Your task to perform on an android device: see creations saved in the google photos Image 0: 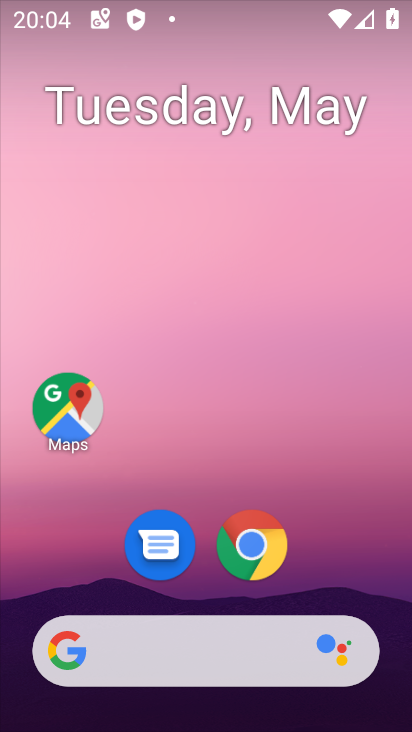
Step 0: drag from (356, 592) to (356, 101)
Your task to perform on an android device: see creations saved in the google photos Image 1: 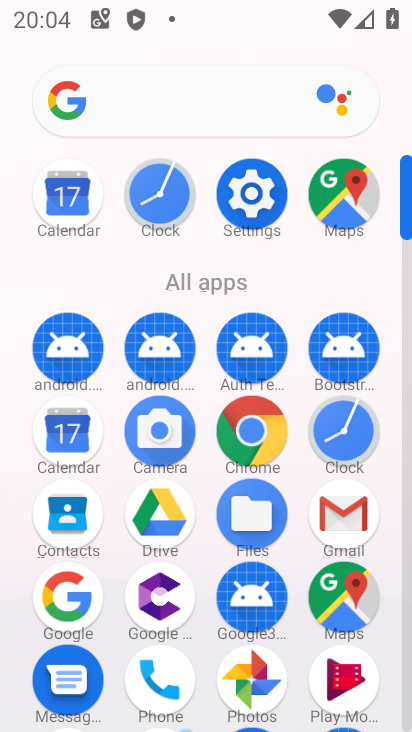
Step 1: click (238, 663)
Your task to perform on an android device: see creations saved in the google photos Image 2: 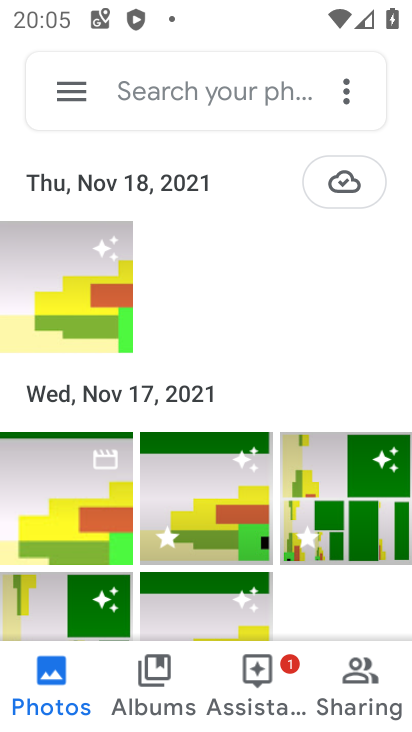
Step 2: click (150, 96)
Your task to perform on an android device: see creations saved in the google photos Image 3: 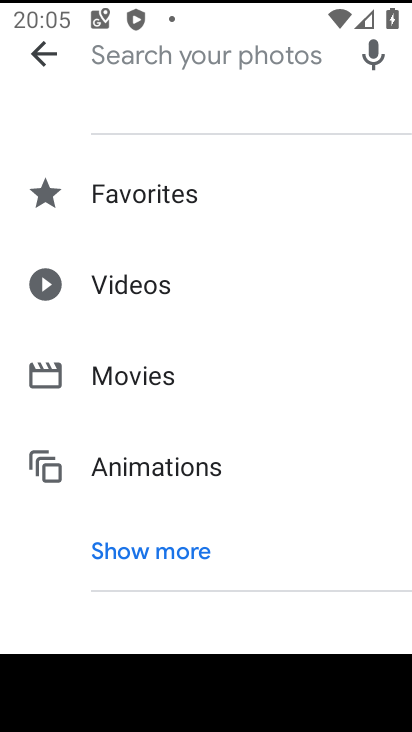
Step 3: click (148, 559)
Your task to perform on an android device: see creations saved in the google photos Image 4: 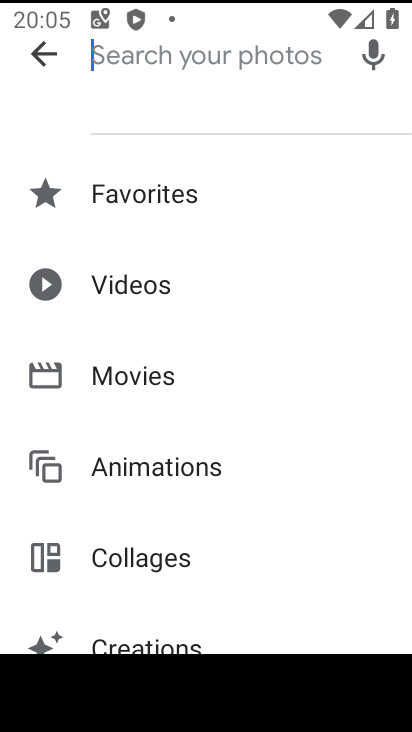
Step 4: click (149, 647)
Your task to perform on an android device: see creations saved in the google photos Image 5: 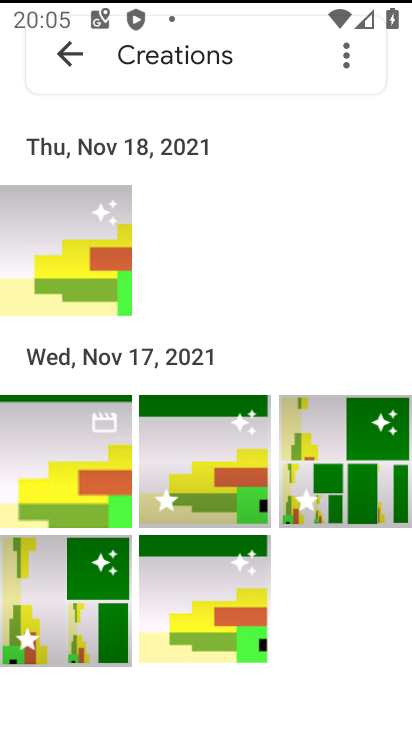
Step 5: task complete